Your task to perform on an android device: Open the web browser Image 0: 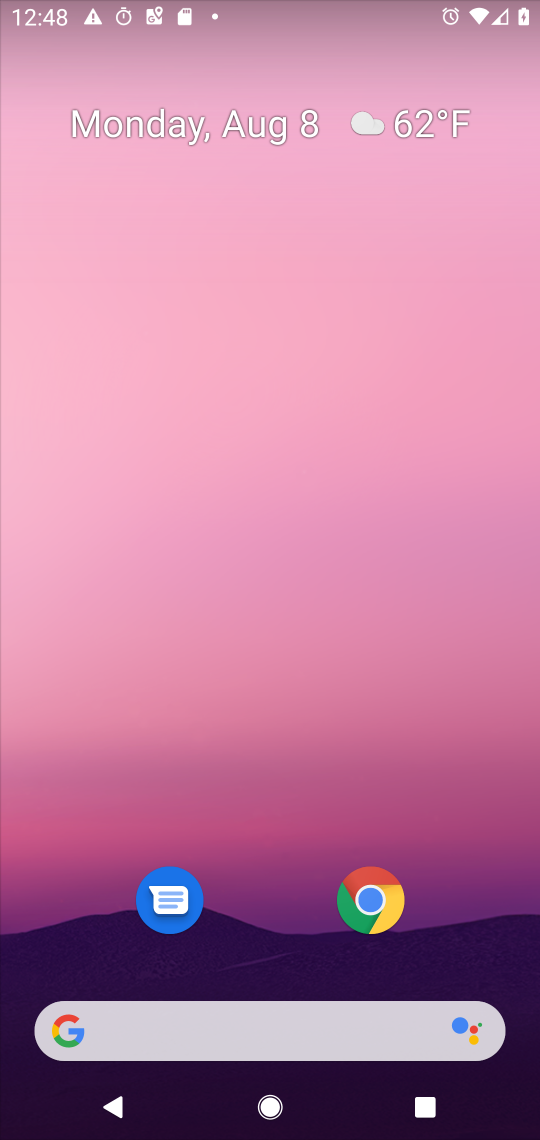
Step 0: press home button
Your task to perform on an android device: Open the web browser Image 1: 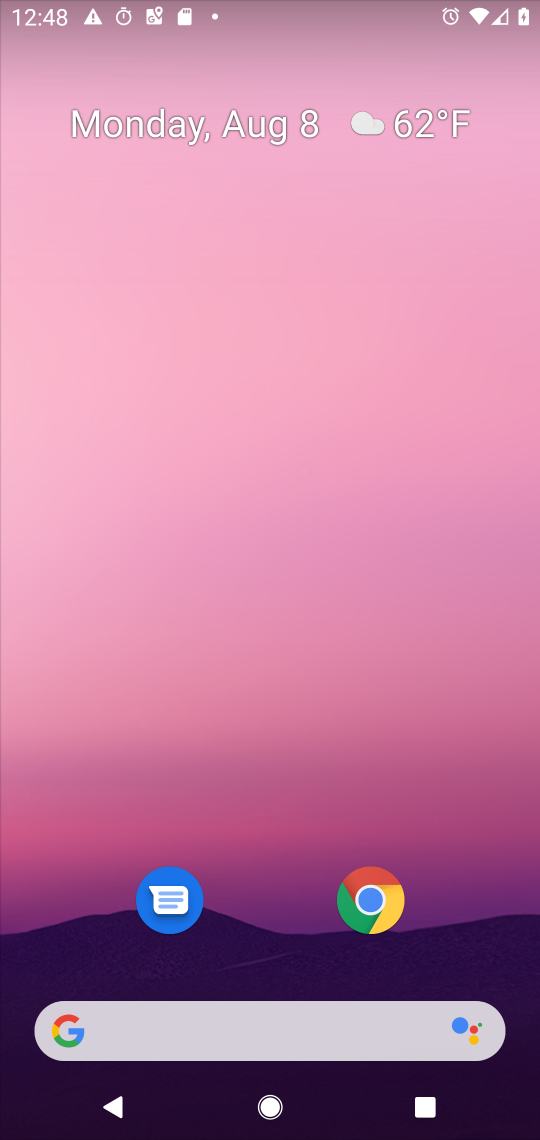
Step 1: click (368, 892)
Your task to perform on an android device: Open the web browser Image 2: 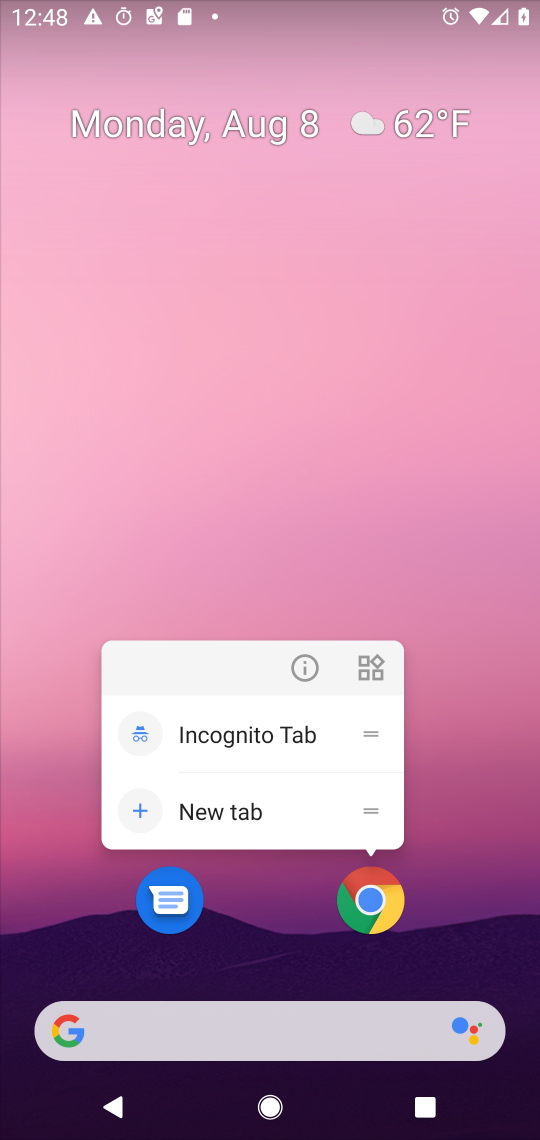
Step 2: click (368, 895)
Your task to perform on an android device: Open the web browser Image 3: 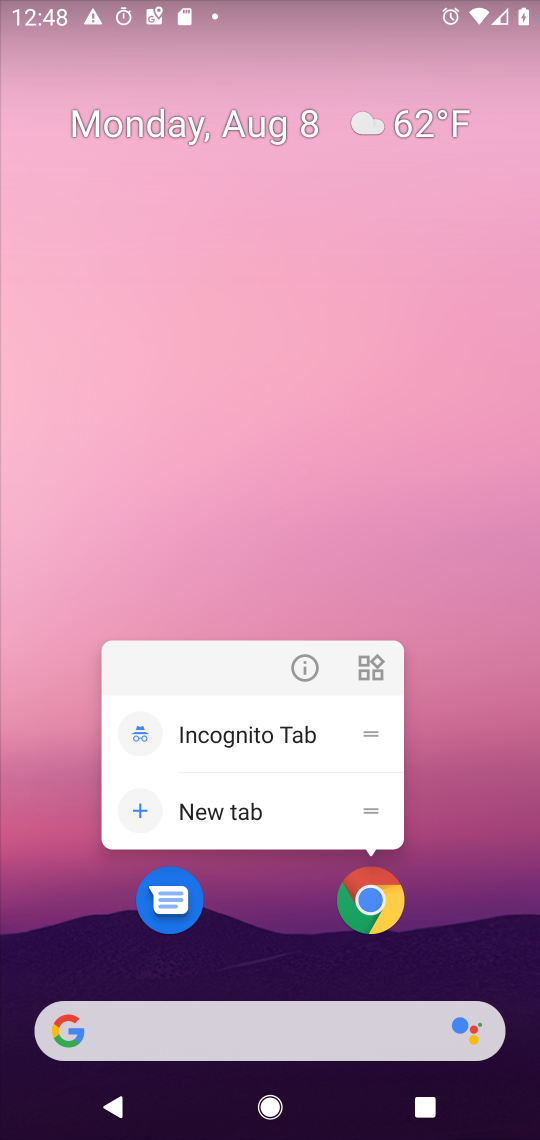
Step 3: click (416, 857)
Your task to perform on an android device: Open the web browser Image 4: 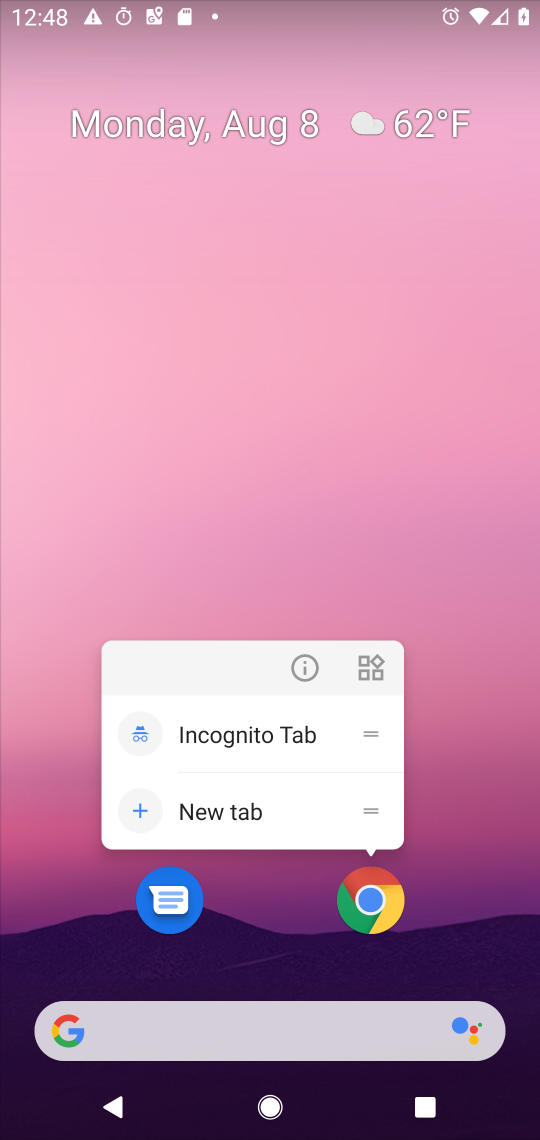
Step 4: drag from (460, 947) to (517, 170)
Your task to perform on an android device: Open the web browser Image 5: 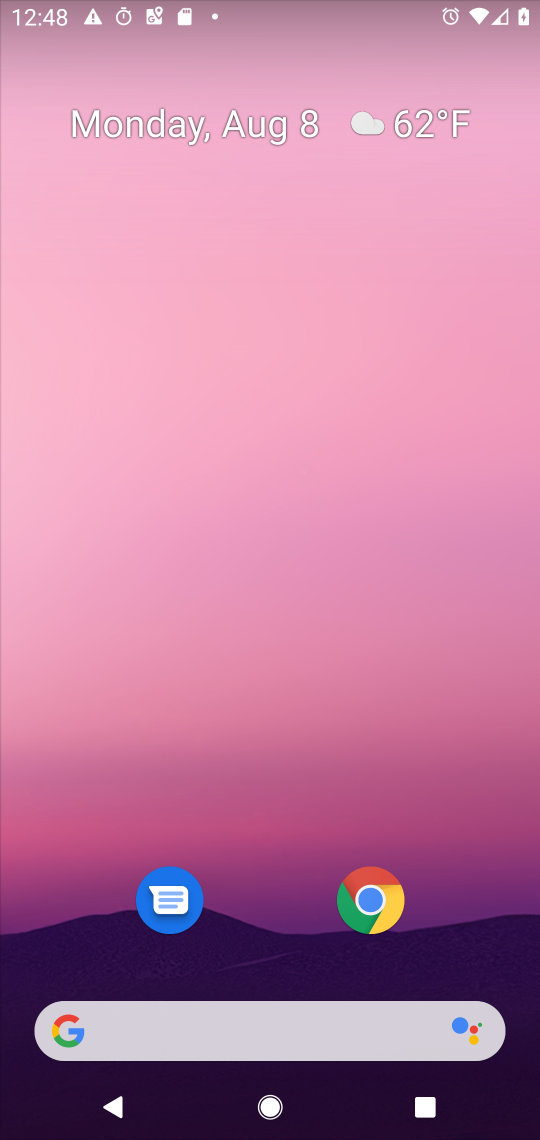
Step 5: drag from (447, 923) to (462, 5)
Your task to perform on an android device: Open the web browser Image 6: 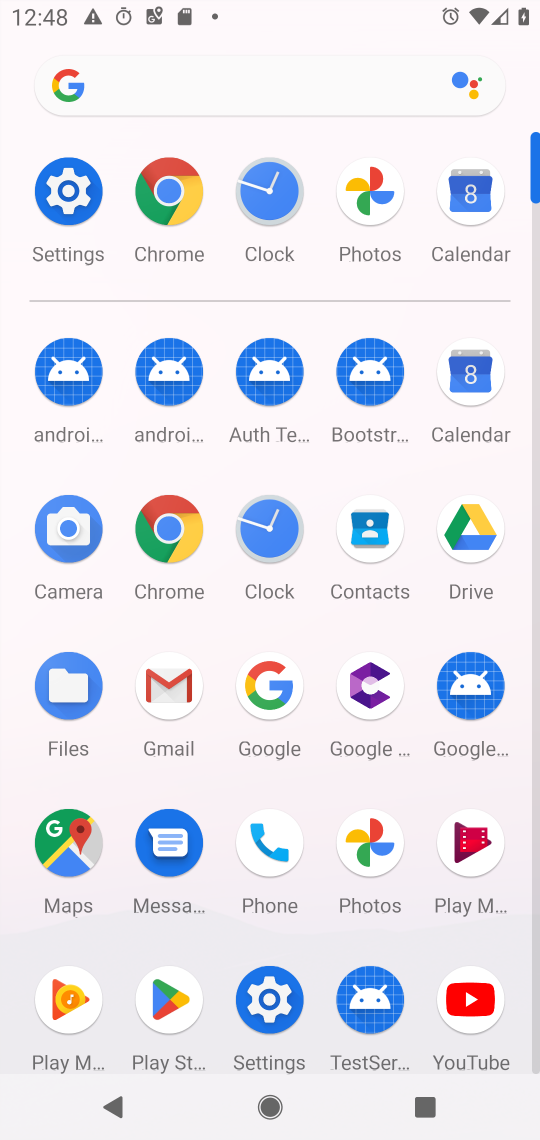
Step 6: click (166, 519)
Your task to perform on an android device: Open the web browser Image 7: 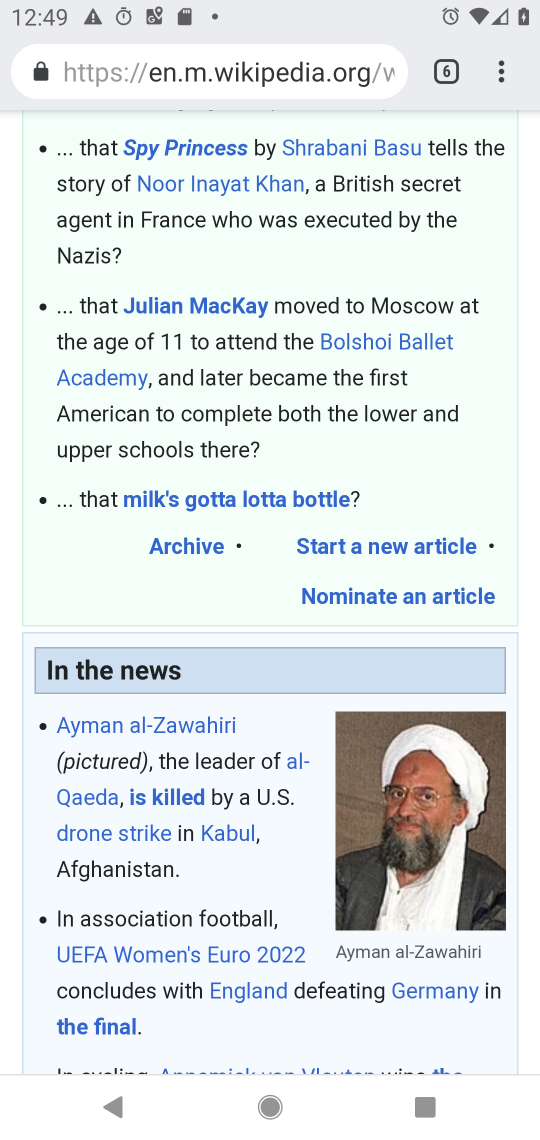
Step 7: click (442, 66)
Your task to perform on an android device: Open the web browser Image 8: 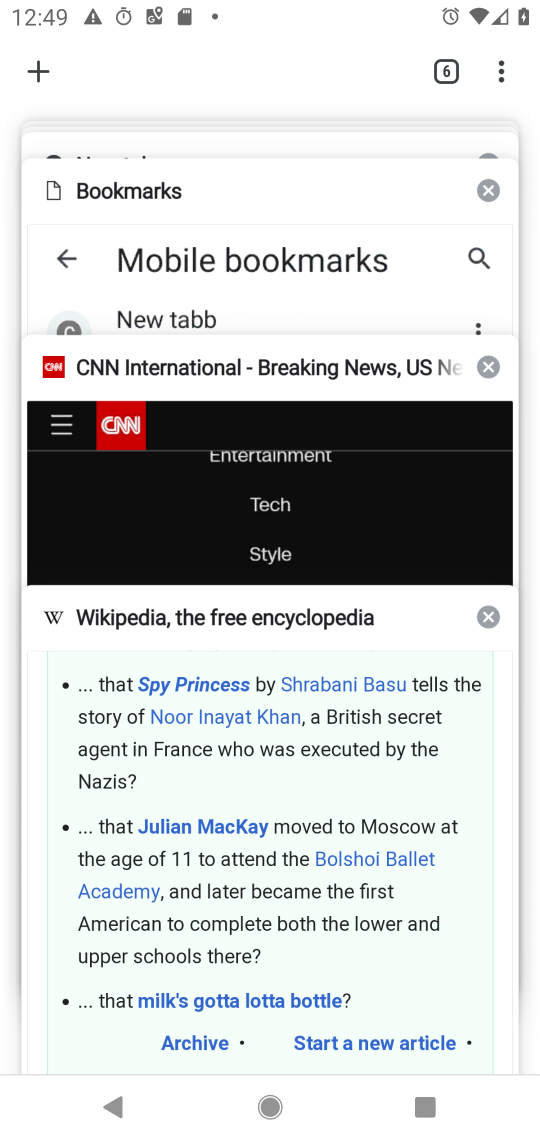
Step 8: click (50, 64)
Your task to perform on an android device: Open the web browser Image 9: 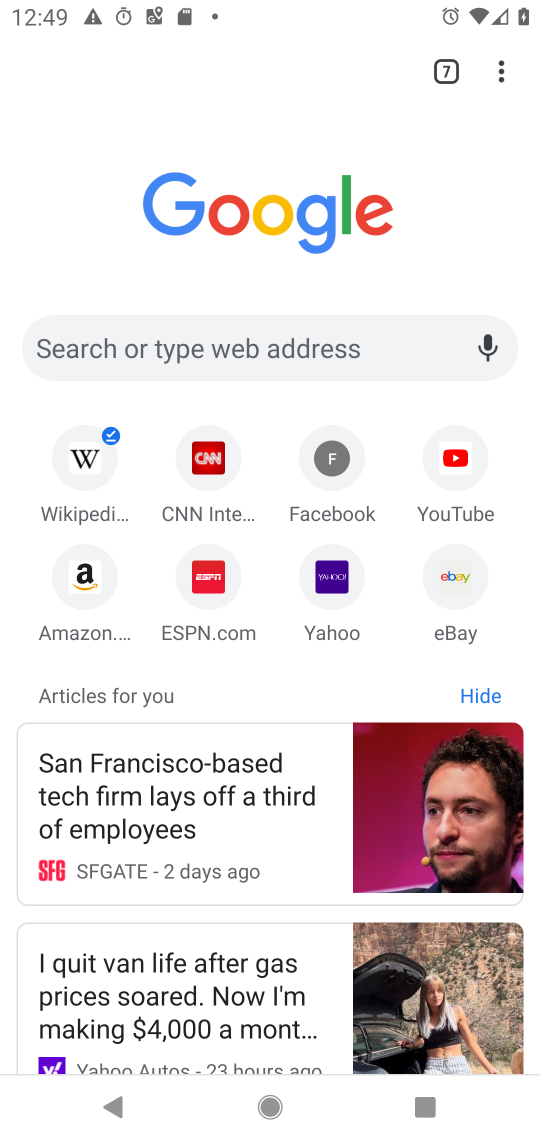
Step 9: task complete